Your task to perform on an android device: Open Youtube and go to the subscriptions tab Image 0: 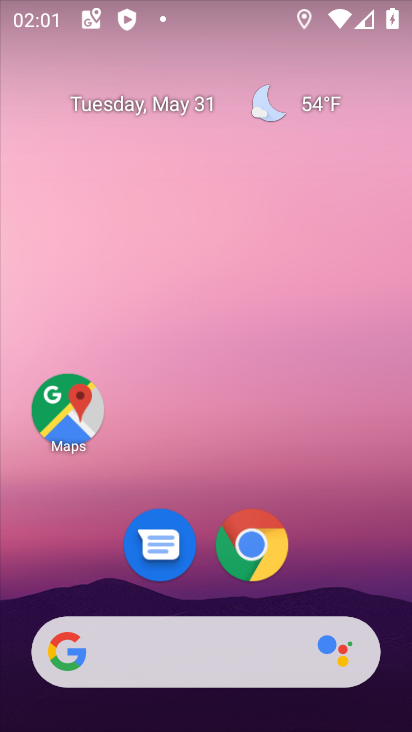
Step 0: drag from (348, 591) to (334, 77)
Your task to perform on an android device: Open Youtube and go to the subscriptions tab Image 1: 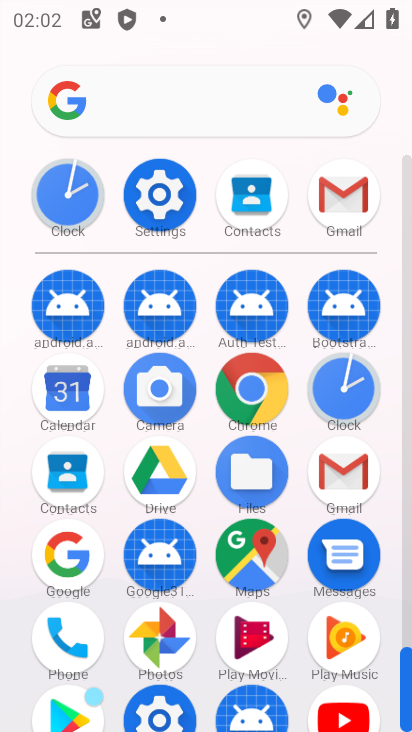
Step 1: click (361, 710)
Your task to perform on an android device: Open Youtube and go to the subscriptions tab Image 2: 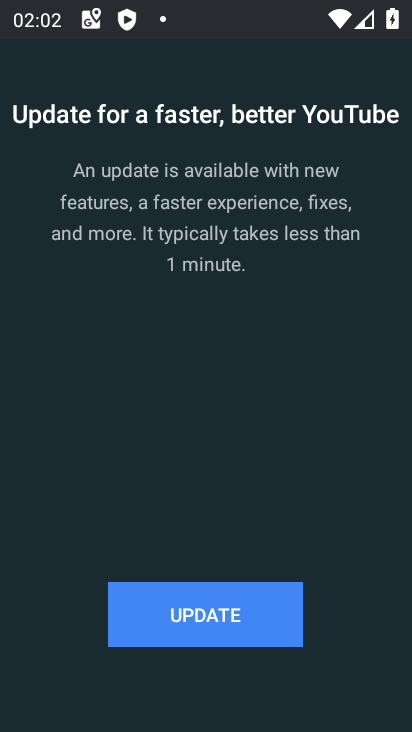
Step 2: click (237, 607)
Your task to perform on an android device: Open Youtube and go to the subscriptions tab Image 3: 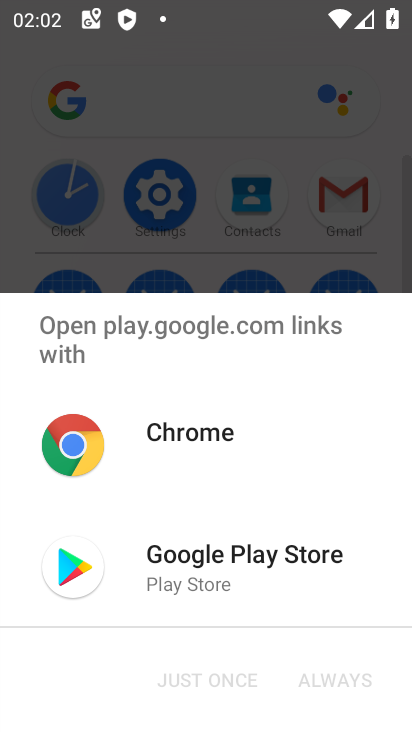
Step 3: click (190, 548)
Your task to perform on an android device: Open Youtube and go to the subscriptions tab Image 4: 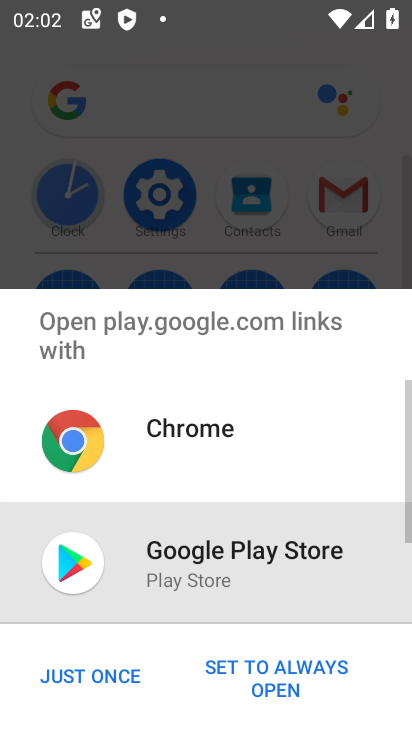
Step 4: click (86, 678)
Your task to perform on an android device: Open Youtube and go to the subscriptions tab Image 5: 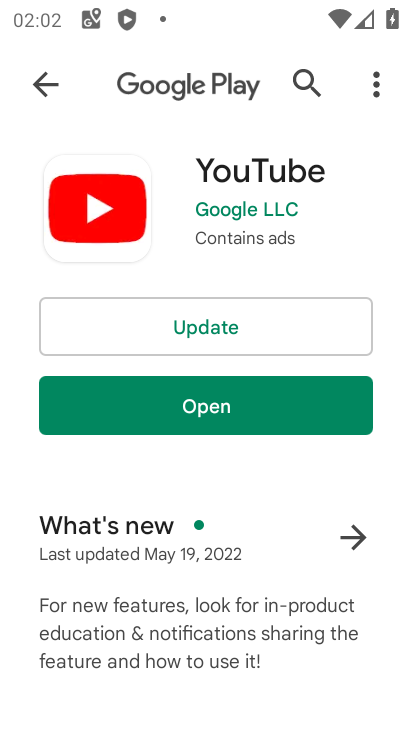
Step 5: click (212, 336)
Your task to perform on an android device: Open Youtube and go to the subscriptions tab Image 6: 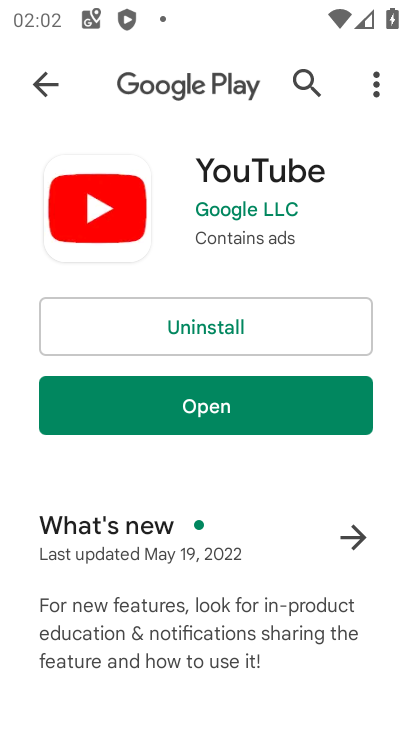
Step 6: click (223, 405)
Your task to perform on an android device: Open Youtube and go to the subscriptions tab Image 7: 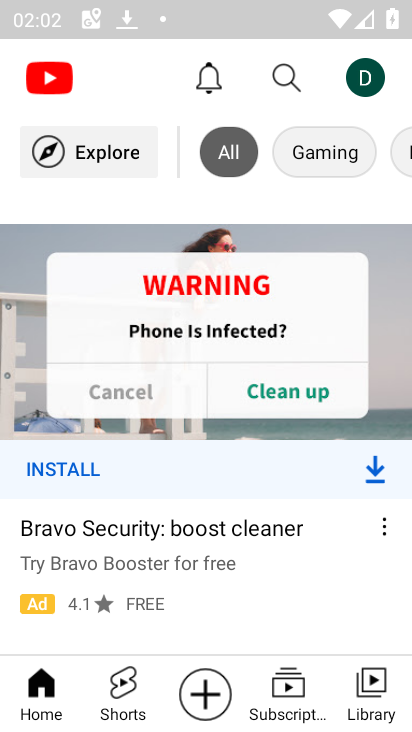
Step 7: click (271, 679)
Your task to perform on an android device: Open Youtube and go to the subscriptions tab Image 8: 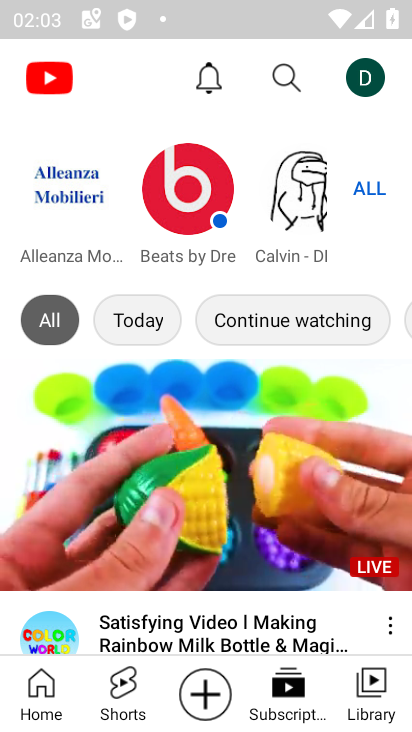
Step 8: task complete